Your task to perform on an android device: Go to privacy settings Image 0: 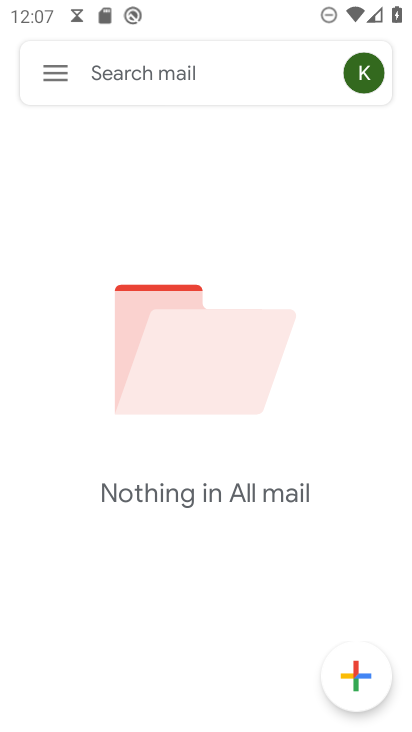
Step 0: press home button
Your task to perform on an android device: Go to privacy settings Image 1: 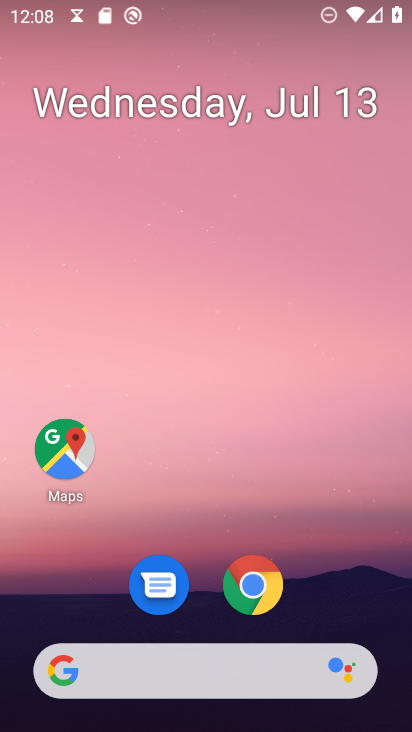
Step 1: drag from (225, 690) to (236, 111)
Your task to perform on an android device: Go to privacy settings Image 2: 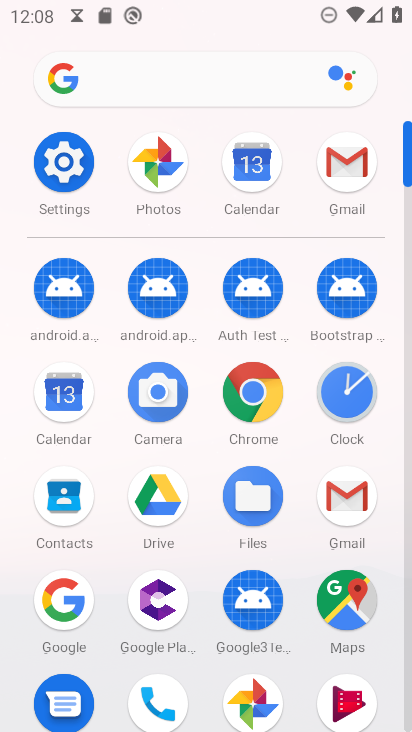
Step 2: click (70, 162)
Your task to perform on an android device: Go to privacy settings Image 3: 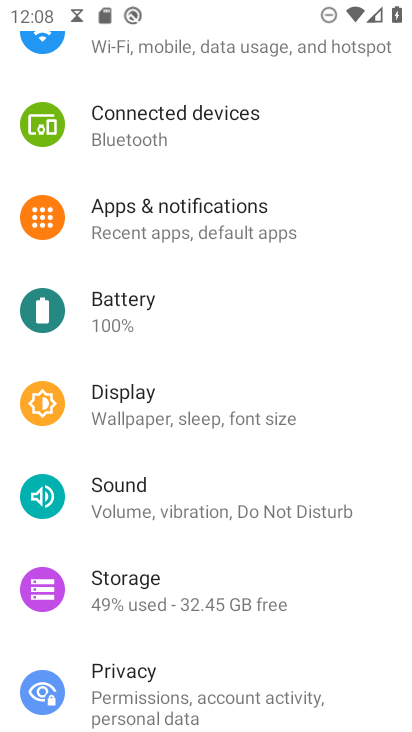
Step 3: click (134, 683)
Your task to perform on an android device: Go to privacy settings Image 4: 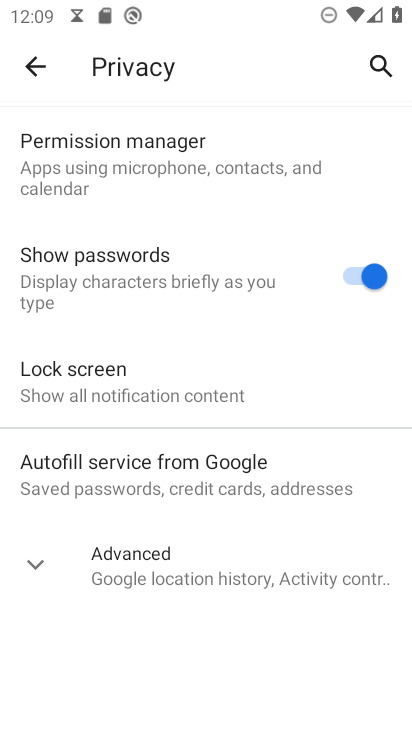
Step 4: task complete